Your task to perform on an android device: What's the weather today? Image 0: 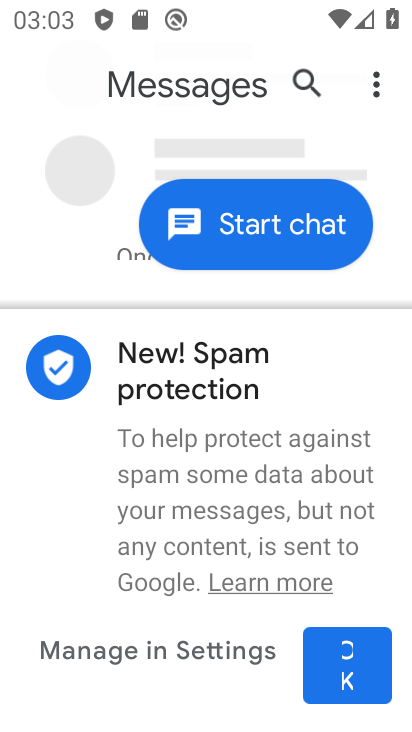
Step 0: press back button
Your task to perform on an android device: What's the weather today? Image 1: 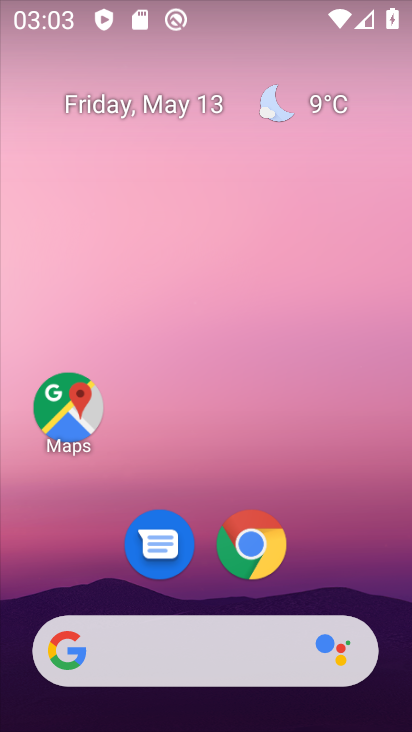
Step 1: drag from (343, 545) to (251, 92)
Your task to perform on an android device: What's the weather today? Image 2: 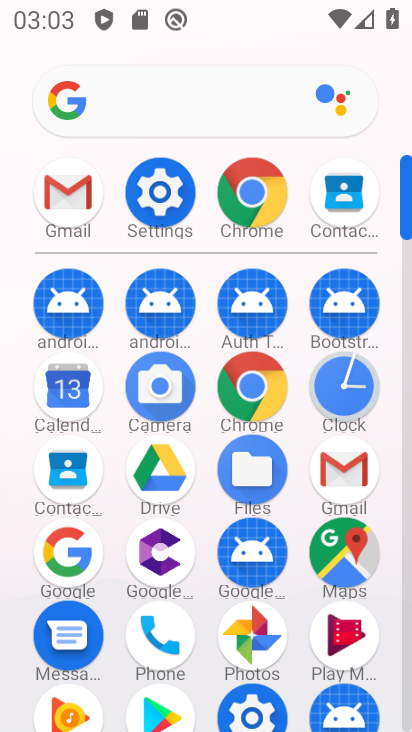
Step 2: drag from (12, 598) to (26, 305)
Your task to perform on an android device: What's the weather today? Image 3: 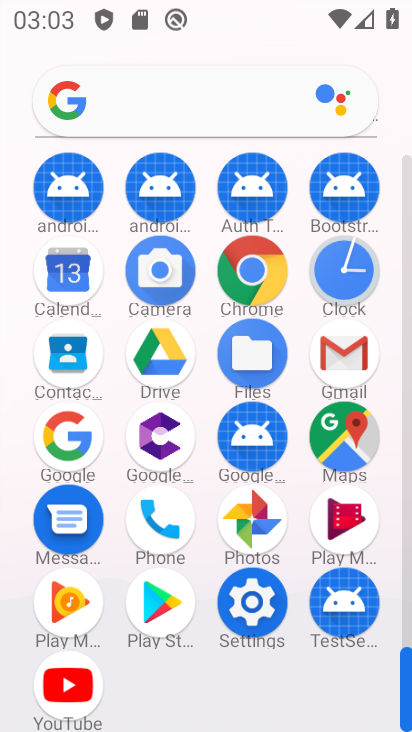
Step 3: click (254, 270)
Your task to perform on an android device: What's the weather today? Image 4: 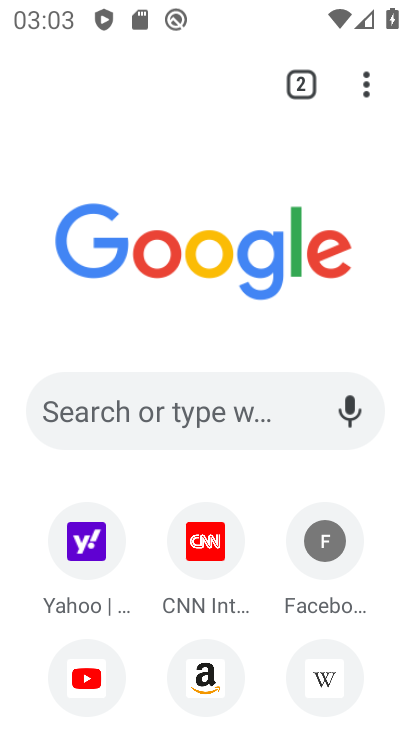
Step 4: click (210, 409)
Your task to perform on an android device: What's the weather today? Image 5: 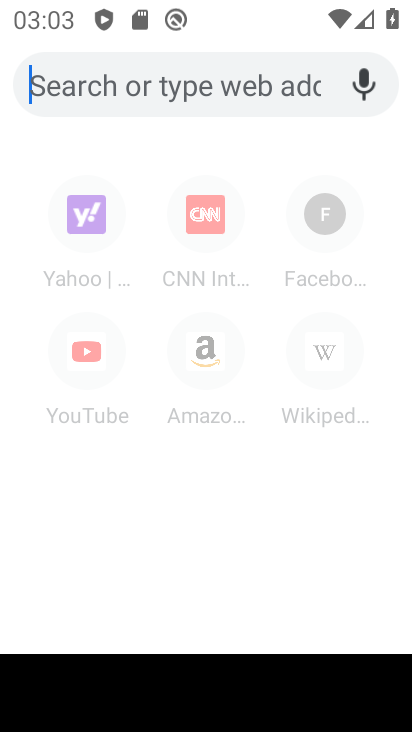
Step 5: type "What's the weather today?"
Your task to perform on an android device: What's the weather today? Image 6: 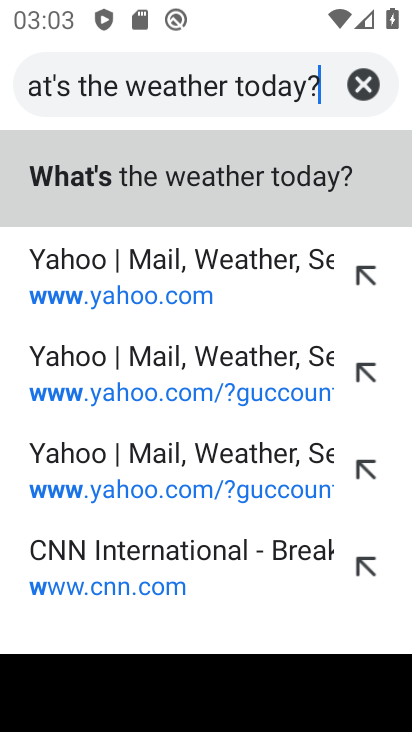
Step 6: type ""
Your task to perform on an android device: What's the weather today? Image 7: 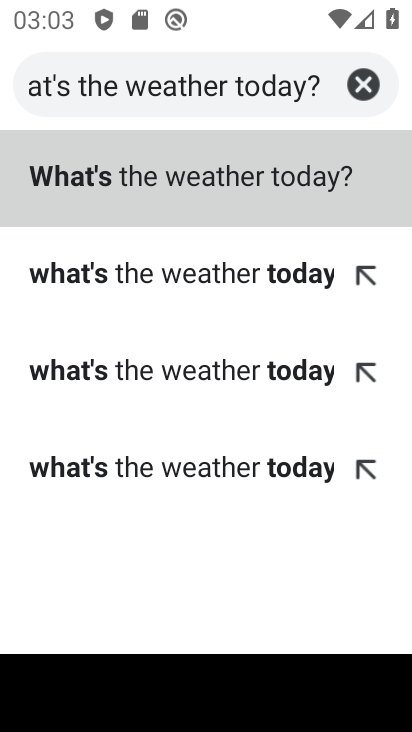
Step 7: click (204, 176)
Your task to perform on an android device: What's the weather today? Image 8: 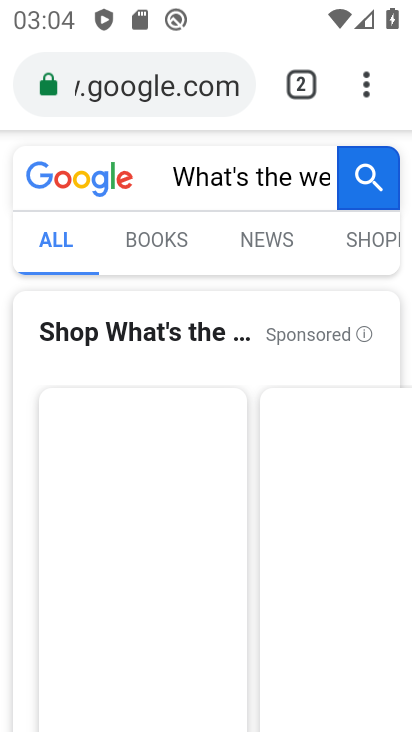
Step 8: click (182, 75)
Your task to perform on an android device: What's the weather today? Image 9: 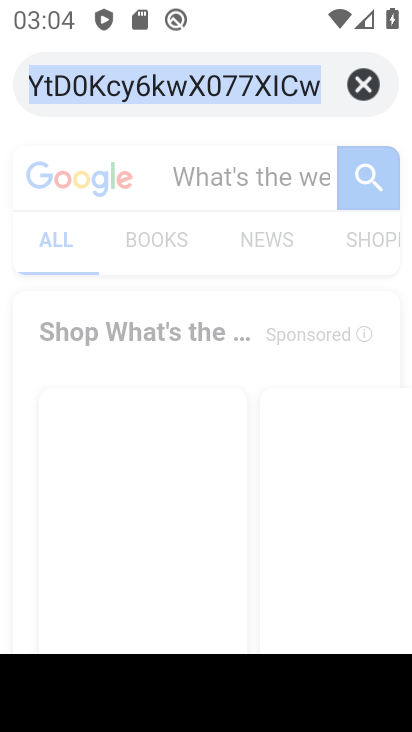
Step 9: click (367, 89)
Your task to perform on an android device: What's the weather today? Image 10: 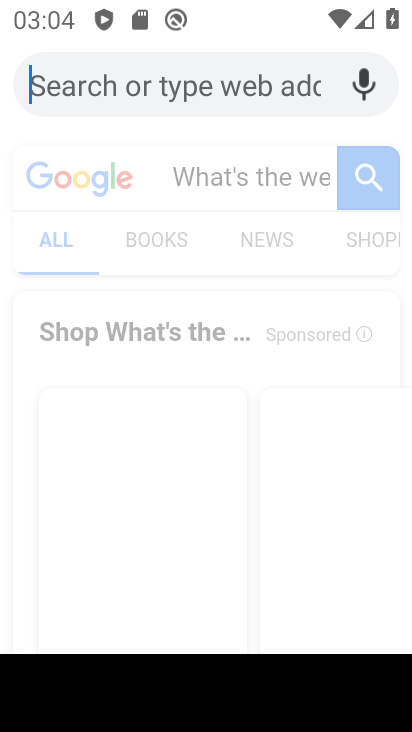
Step 10: type "What's the weather today?"
Your task to perform on an android device: What's the weather today? Image 11: 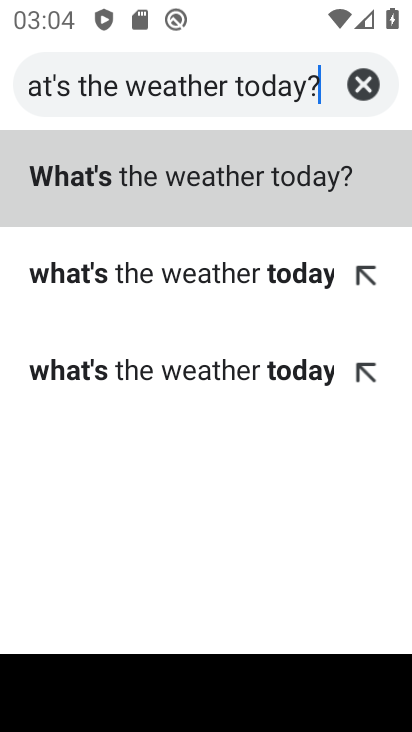
Step 11: type ""
Your task to perform on an android device: What's the weather today? Image 12: 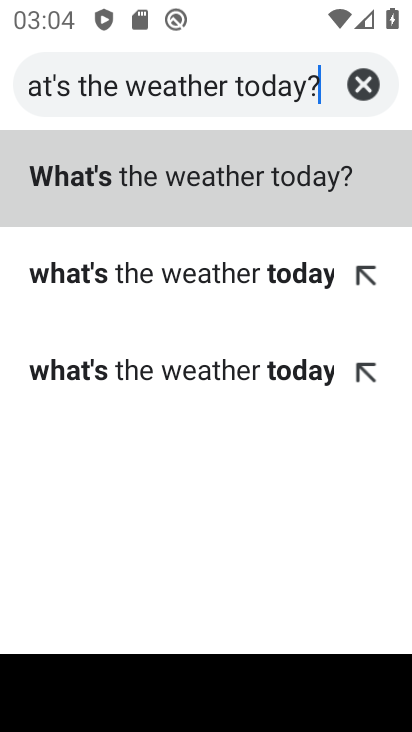
Step 12: click (171, 170)
Your task to perform on an android device: What's the weather today? Image 13: 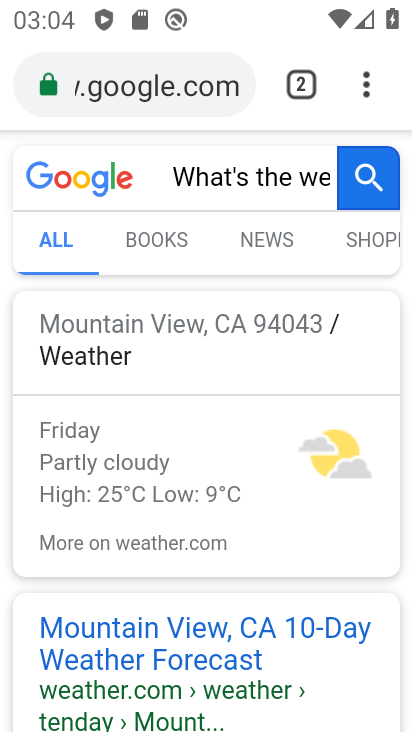
Step 13: task complete